Your task to perform on an android device: turn on wifi Image 0: 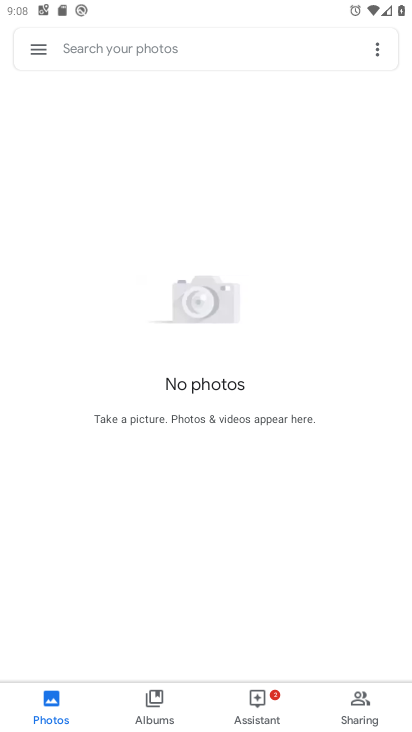
Step 0: press home button
Your task to perform on an android device: turn on wifi Image 1: 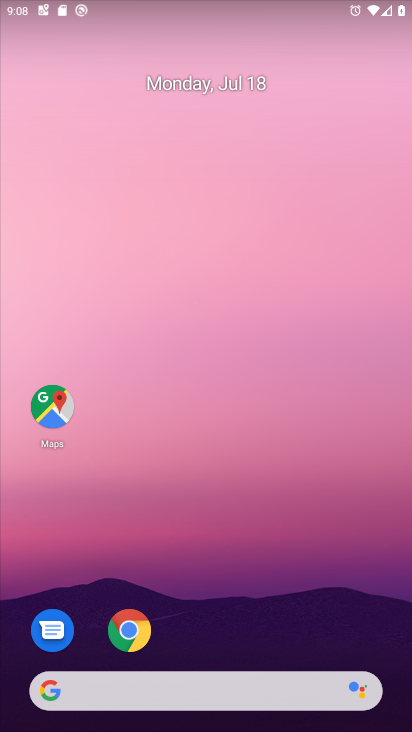
Step 1: drag from (219, 647) to (222, 171)
Your task to perform on an android device: turn on wifi Image 2: 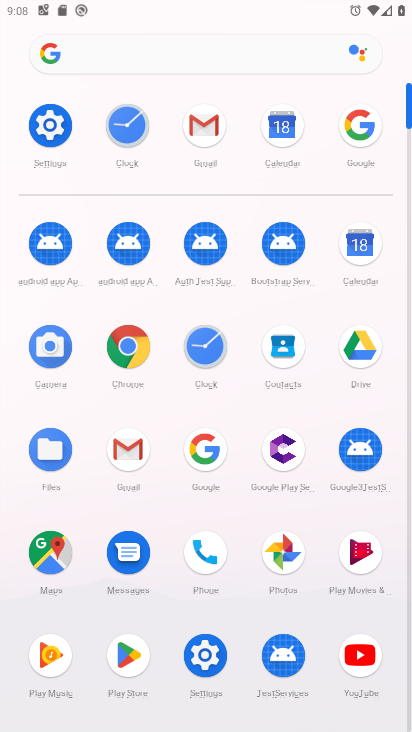
Step 2: click (67, 123)
Your task to perform on an android device: turn on wifi Image 3: 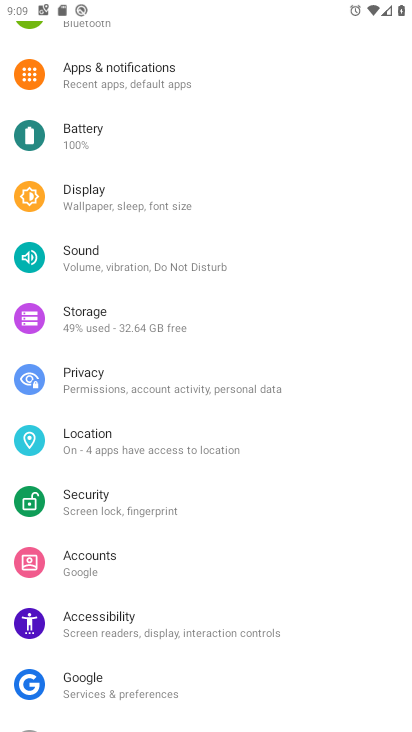
Step 3: drag from (206, 178) to (228, 494)
Your task to perform on an android device: turn on wifi Image 4: 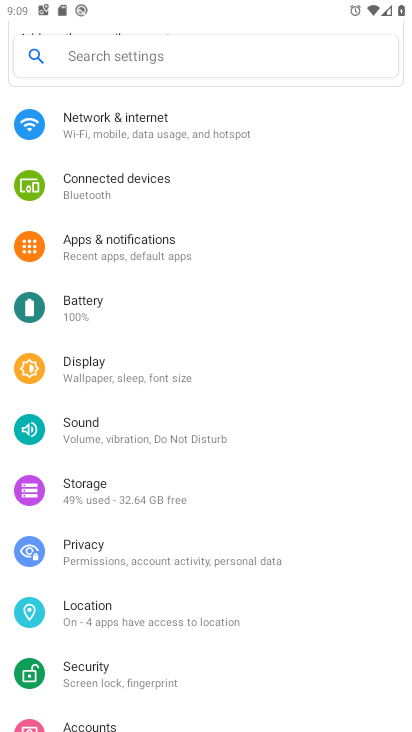
Step 4: click (186, 130)
Your task to perform on an android device: turn on wifi Image 5: 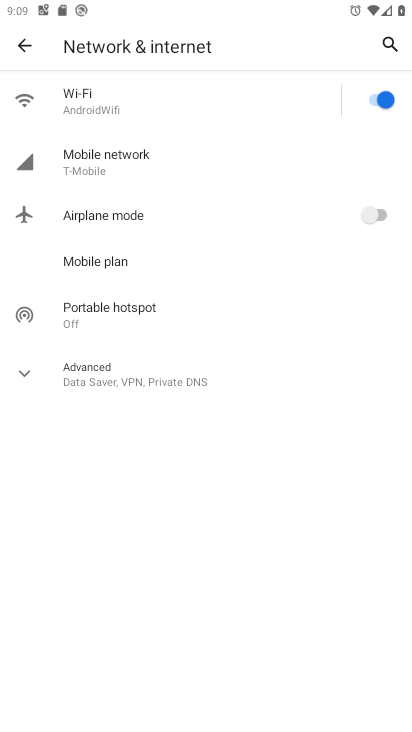
Step 5: task complete